Your task to perform on an android device: Go to accessibility settings Image 0: 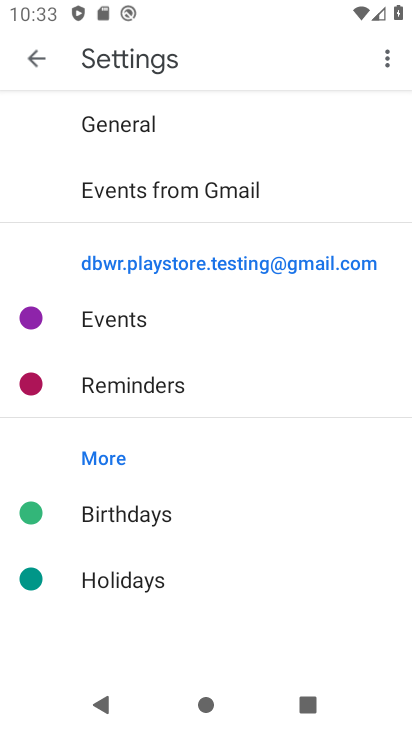
Step 0: press home button
Your task to perform on an android device: Go to accessibility settings Image 1: 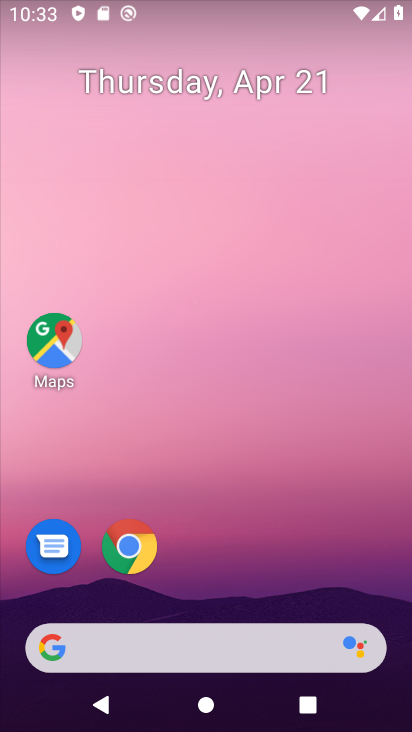
Step 1: drag from (267, 590) to (250, 157)
Your task to perform on an android device: Go to accessibility settings Image 2: 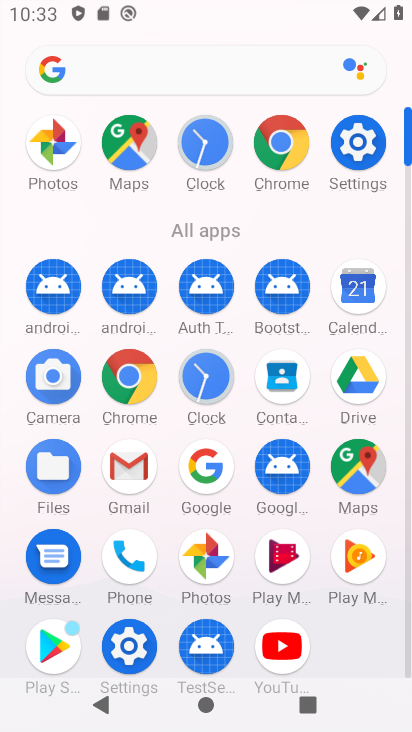
Step 2: click (129, 662)
Your task to perform on an android device: Go to accessibility settings Image 3: 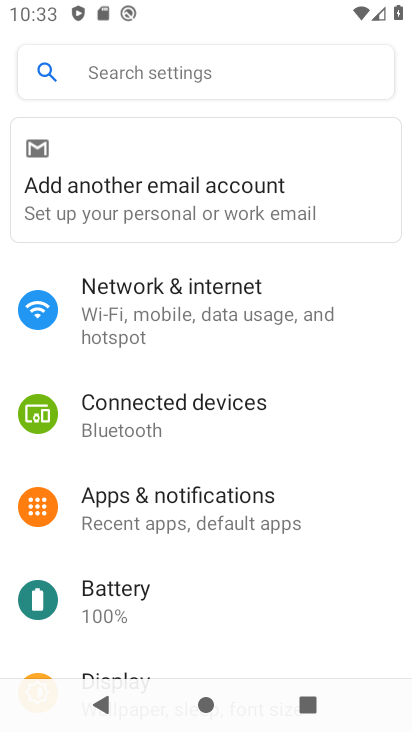
Step 3: drag from (201, 602) to (237, 127)
Your task to perform on an android device: Go to accessibility settings Image 4: 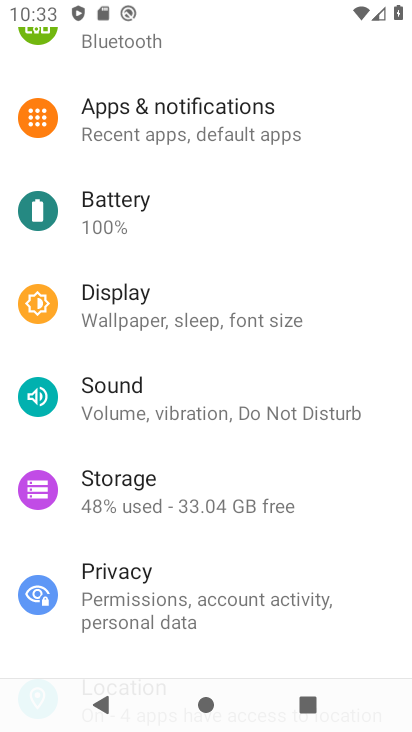
Step 4: drag from (199, 605) to (299, 240)
Your task to perform on an android device: Go to accessibility settings Image 5: 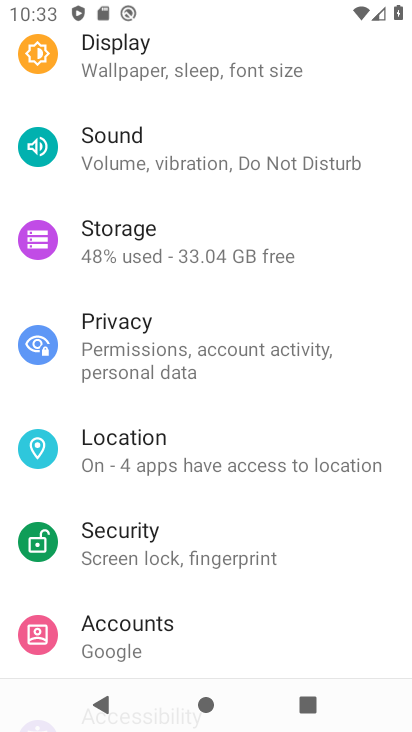
Step 5: drag from (226, 555) to (269, 246)
Your task to perform on an android device: Go to accessibility settings Image 6: 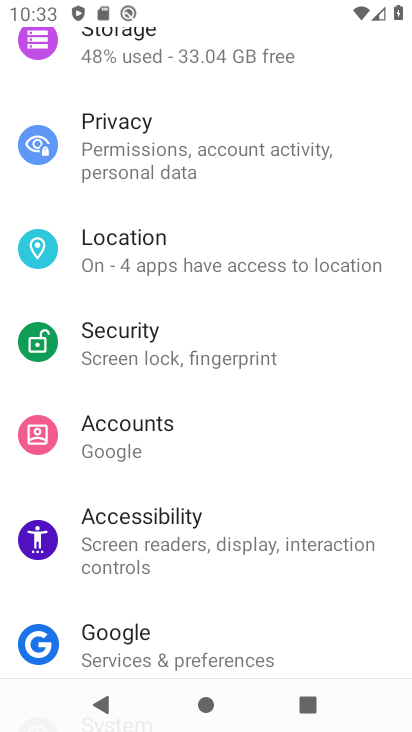
Step 6: click (151, 524)
Your task to perform on an android device: Go to accessibility settings Image 7: 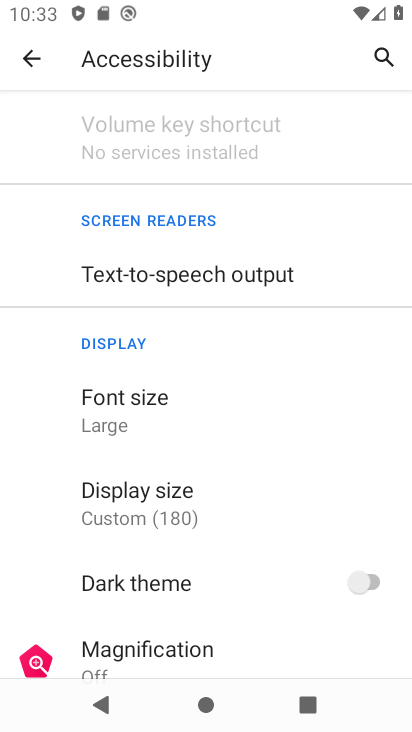
Step 7: task complete